Your task to perform on an android device: change keyboard looks Image 0: 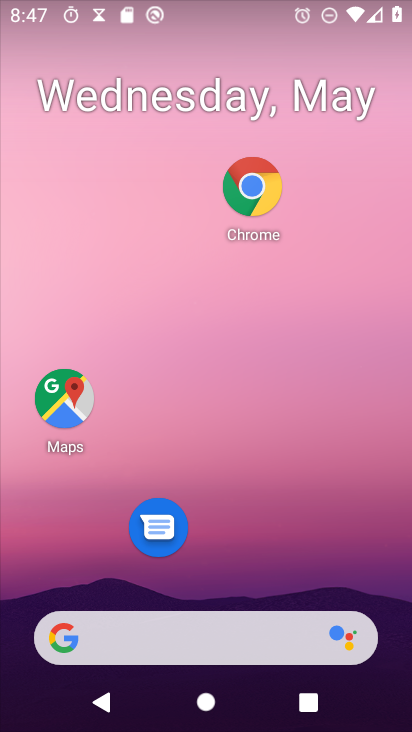
Step 0: press home button
Your task to perform on an android device: change keyboard looks Image 1: 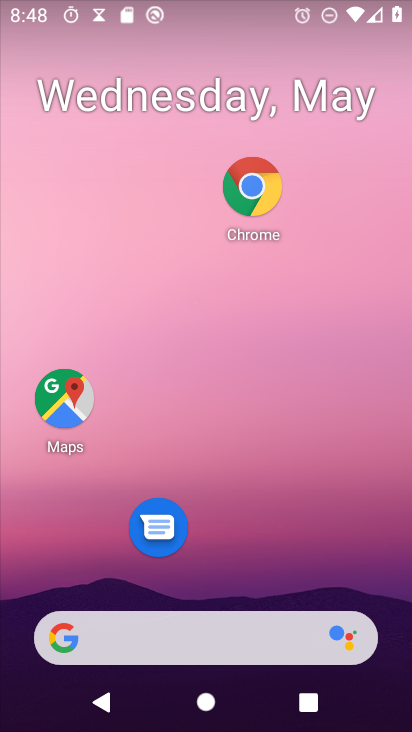
Step 1: drag from (326, 536) to (337, 113)
Your task to perform on an android device: change keyboard looks Image 2: 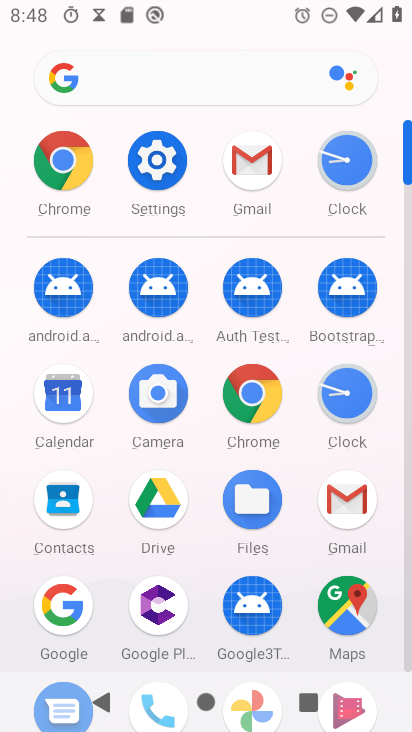
Step 2: click (153, 160)
Your task to perform on an android device: change keyboard looks Image 3: 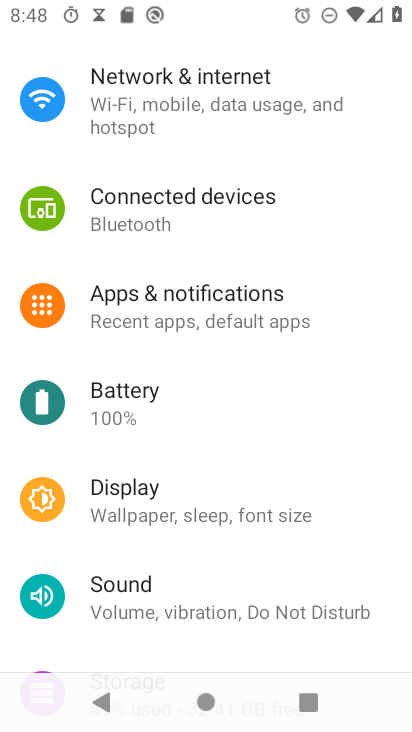
Step 3: drag from (406, 537) to (410, 191)
Your task to perform on an android device: change keyboard looks Image 4: 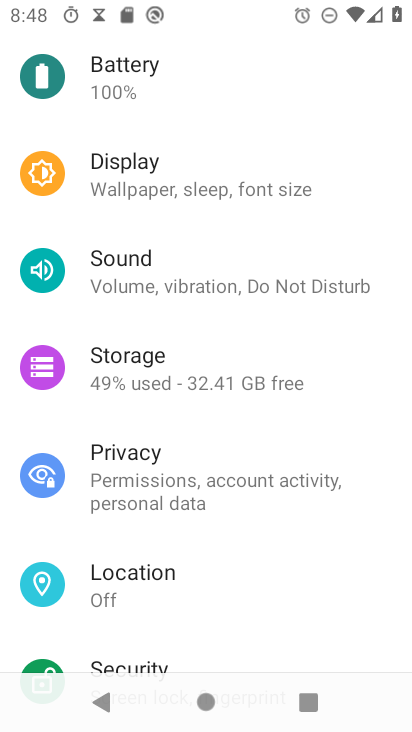
Step 4: drag from (320, 601) to (322, 146)
Your task to perform on an android device: change keyboard looks Image 5: 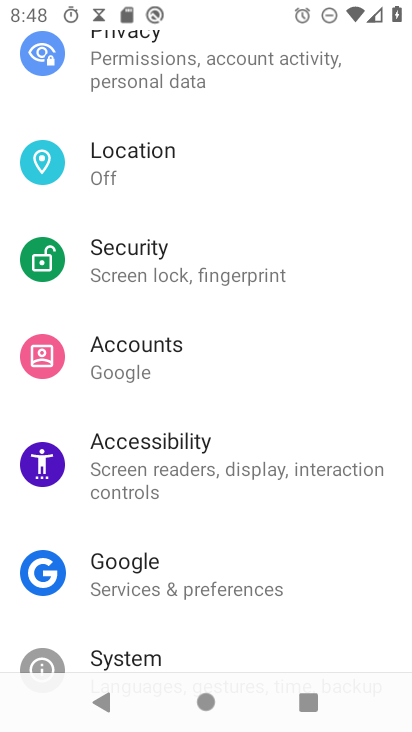
Step 5: drag from (281, 553) to (269, 140)
Your task to perform on an android device: change keyboard looks Image 6: 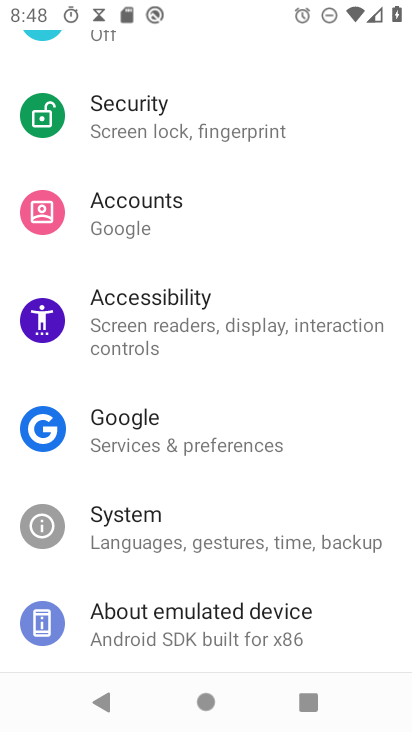
Step 6: click (144, 548)
Your task to perform on an android device: change keyboard looks Image 7: 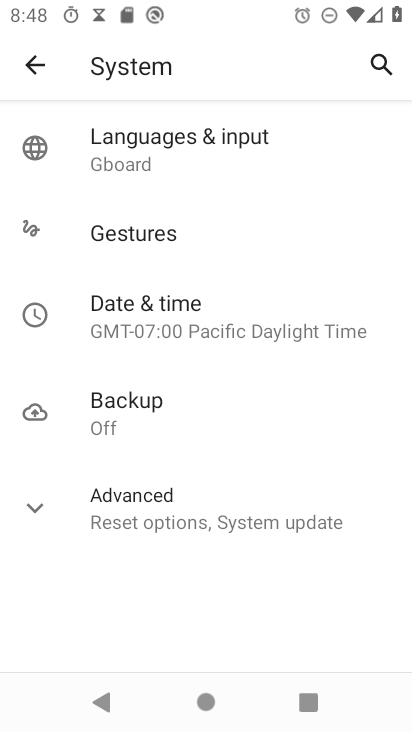
Step 7: click (148, 146)
Your task to perform on an android device: change keyboard looks Image 8: 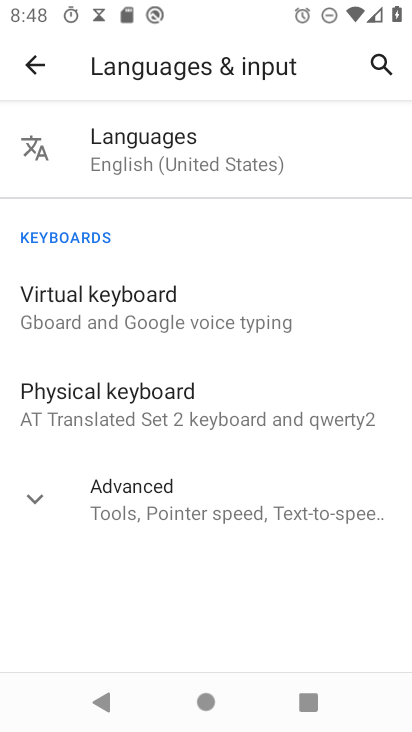
Step 8: click (172, 323)
Your task to perform on an android device: change keyboard looks Image 9: 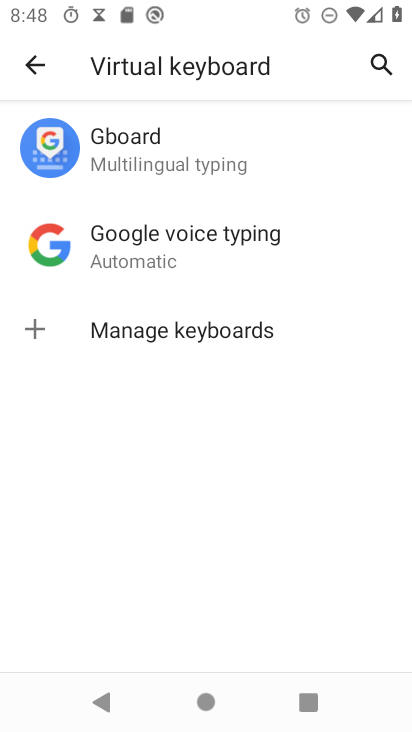
Step 9: click (114, 145)
Your task to perform on an android device: change keyboard looks Image 10: 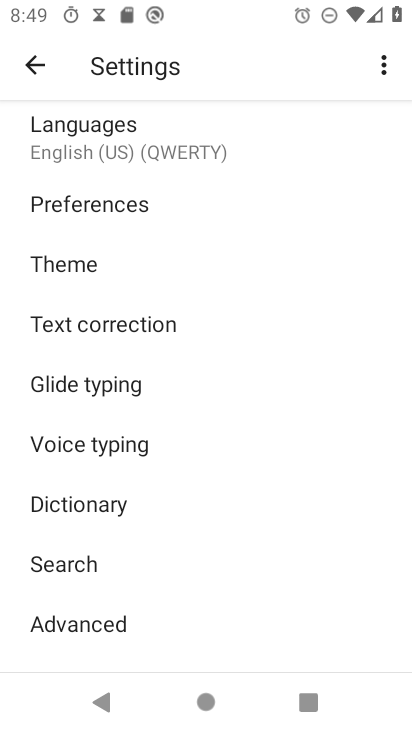
Step 10: click (79, 265)
Your task to perform on an android device: change keyboard looks Image 11: 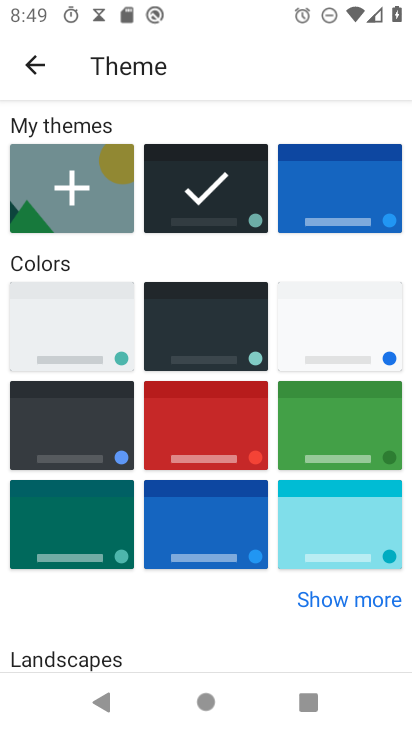
Step 11: click (170, 330)
Your task to perform on an android device: change keyboard looks Image 12: 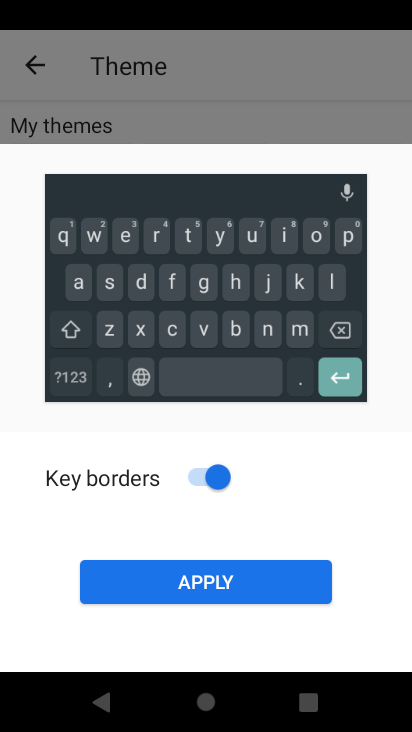
Step 12: click (197, 587)
Your task to perform on an android device: change keyboard looks Image 13: 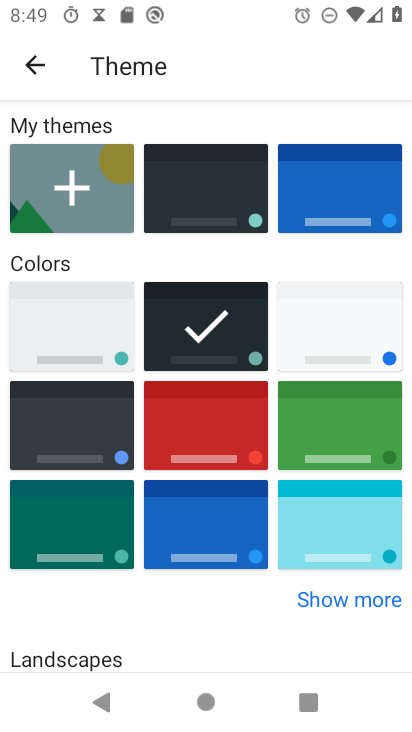
Step 13: task complete